Your task to perform on an android device: delete a single message in the gmail app Image 0: 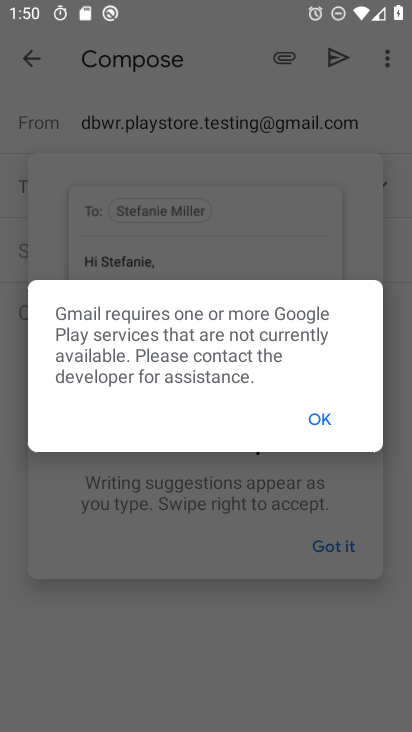
Step 0: press home button
Your task to perform on an android device: delete a single message in the gmail app Image 1: 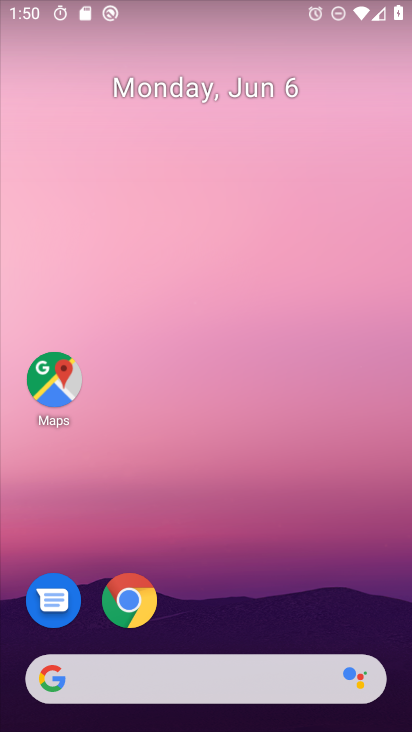
Step 1: drag from (207, 606) to (230, 202)
Your task to perform on an android device: delete a single message in the gmail app Image 2: 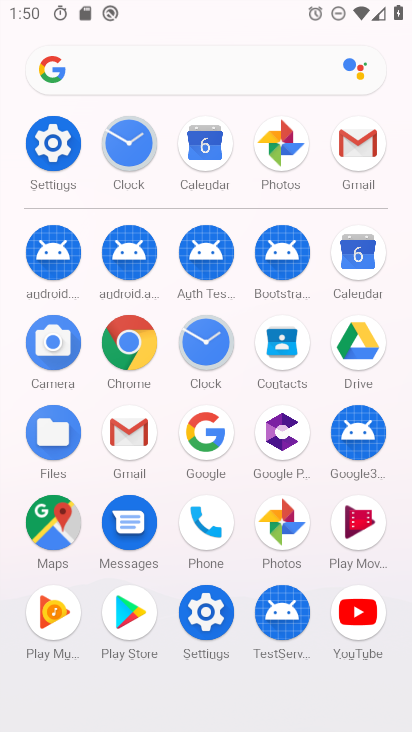
Step 2: click (363, 163)
Your task to perform on an android device: delete a single message in the gmail app Image 3: 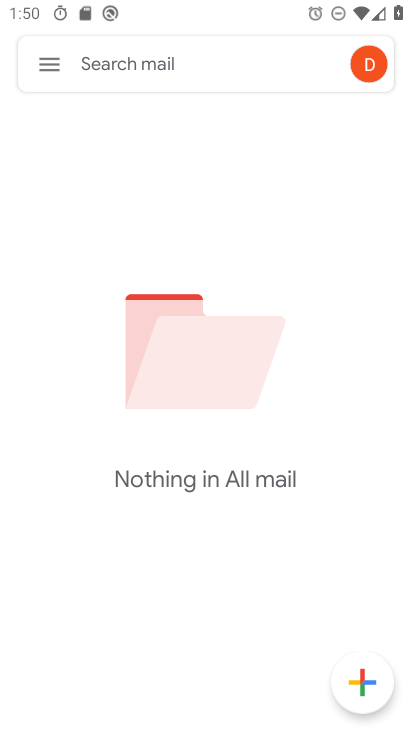
Step 3: click (33, 66)
Your task to perform on an android device: delete a single message in the gmail app Image 4: 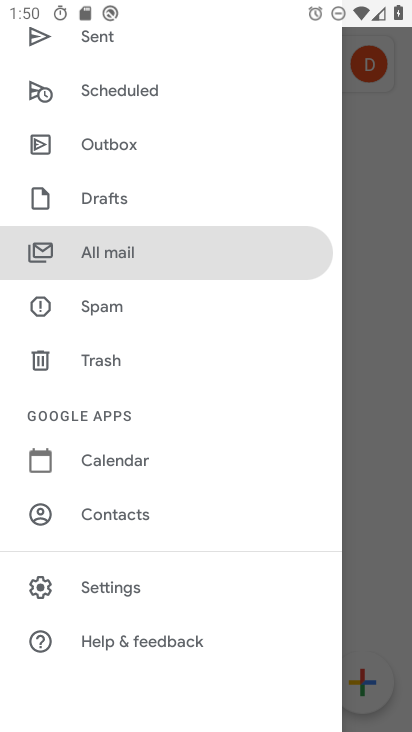
Step 4: drag from (201, 142) to (219, 486)
Your task to perform on an android device: delete a single message in the gmail app Image 5: 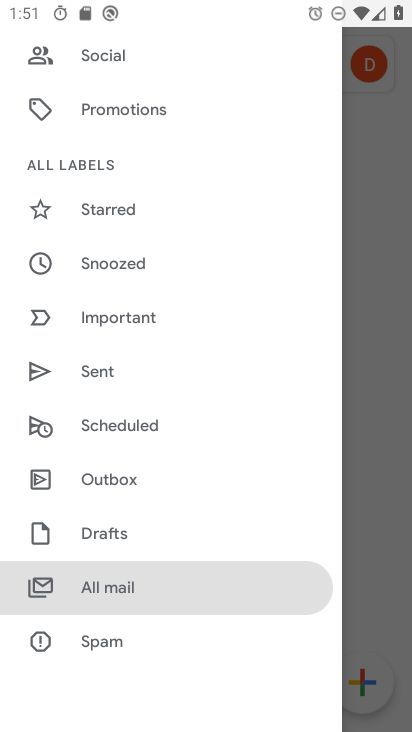
Step 5: drag from (172, 251) to (205, 429)
Your task to perform on an android device: delete a single message in the gmail app Image 6: 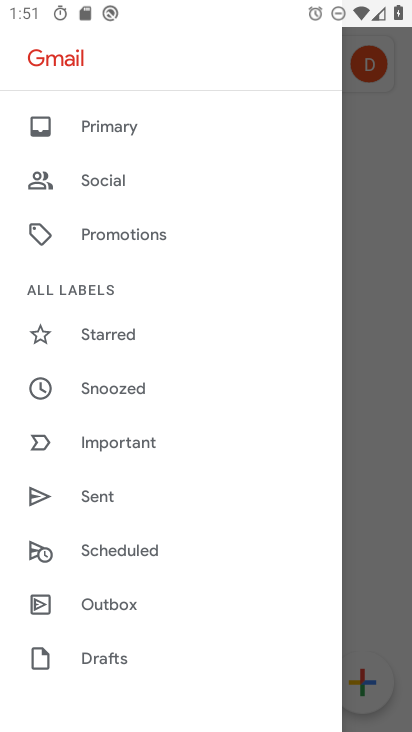
Step 6: drag from (169, 277) to (233, 170)
Your task to perform on an android device: delete a single message in the gmail app Image 7: 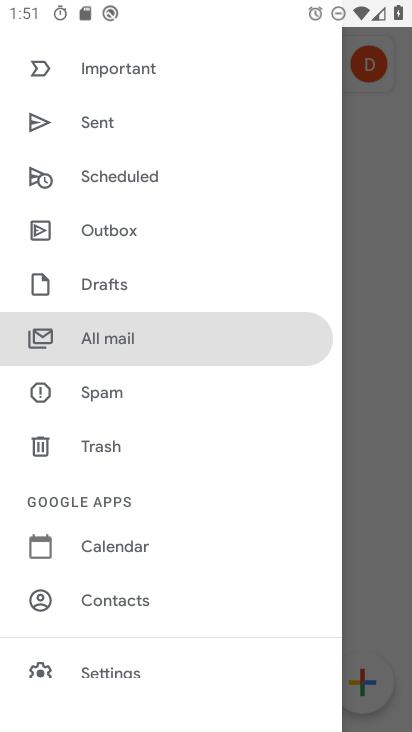
Step 7: click (143, 345)
Your task to perform on an android device: delete a single message in the gmail app Image 8: 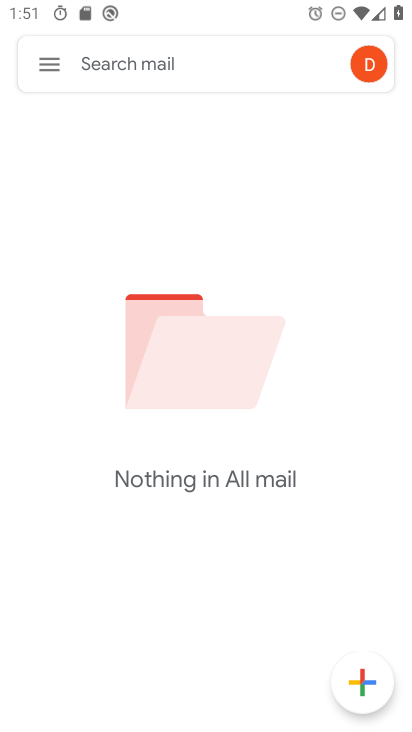
Step 8: task complete